Your task to perform on an android device: turn on showing notifications on the lock screen Image 0: 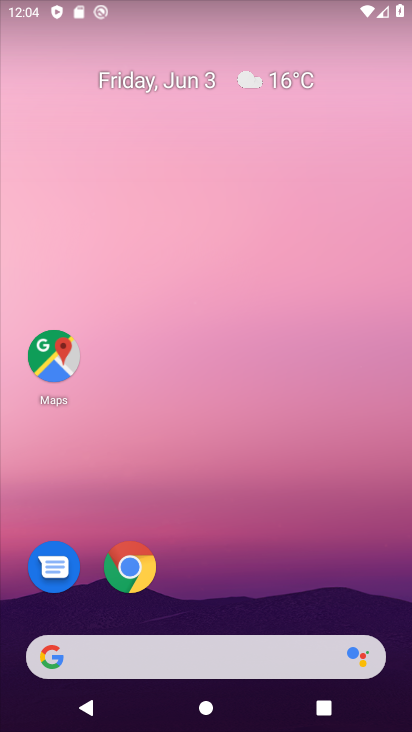
Step 0: drag from (261, 568) to (261, 225)
Your task to perform on an android device: turn on showing notifications on the lock screen Image 1: 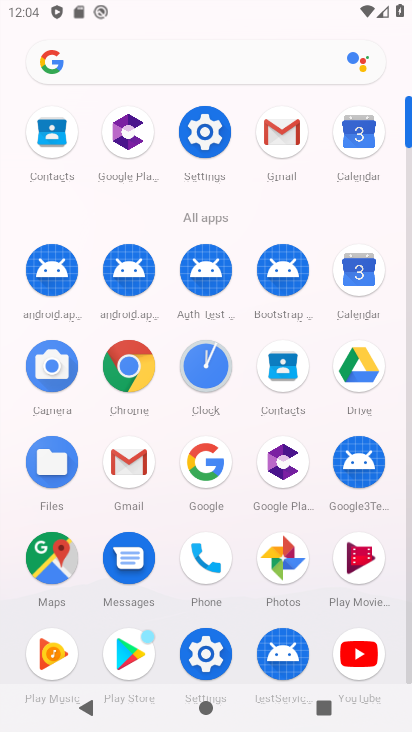
Step 1: click (212, 634)
Your task to perform on an android device: turn on showing notifications on the lock screen Image 2: 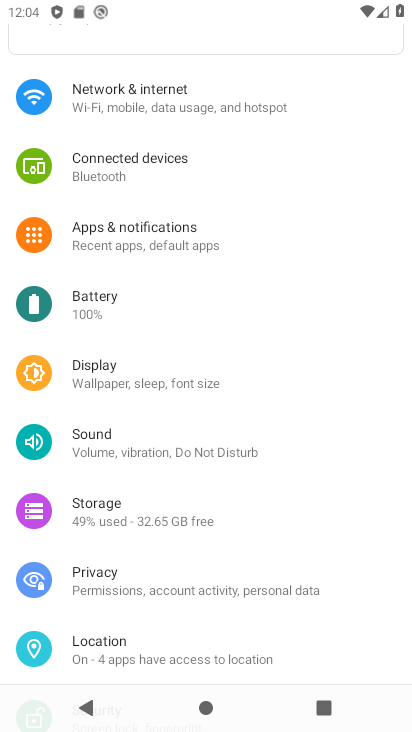
Step 2: click (75, 249)
Your task to perform on an android device: turn on showing notifications on the lock screen Image 3: 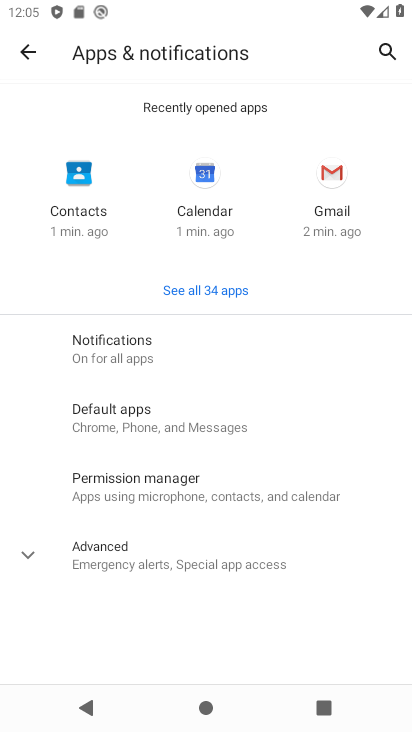
Step 3: click (135, 348)
Your task to perform on an android device: turn on showing notifications on the lock screen Image 4: 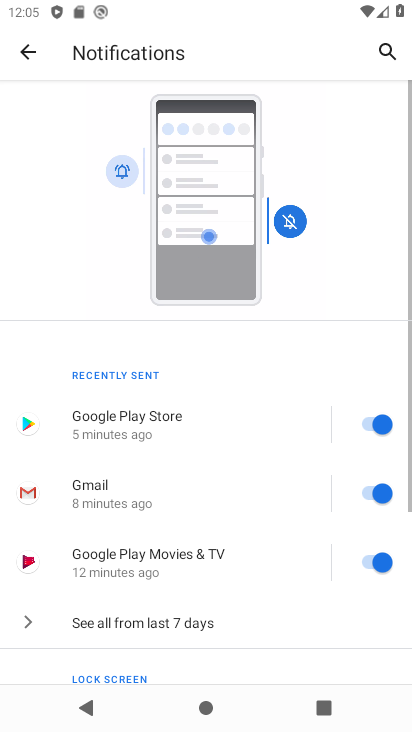
Step 4: drag from (156, 646) to (164, 333)
Your task to perform on an android device: turn on showing notifications on the lock screen Image 5: 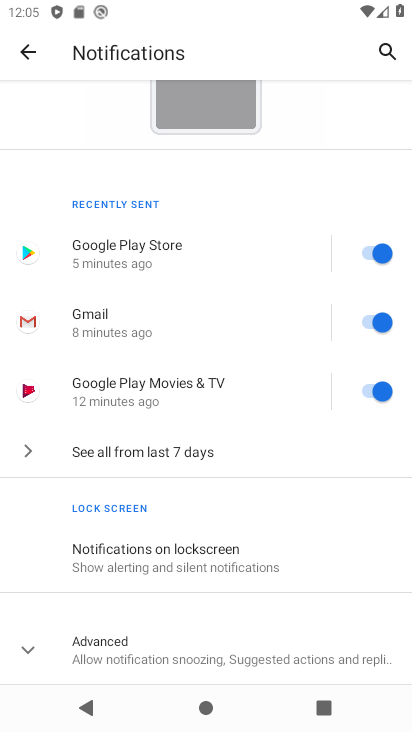
Step 5: click (122, 546)
Your task to perform on an android device: turn on showing notifications on the lock screen Image 6: 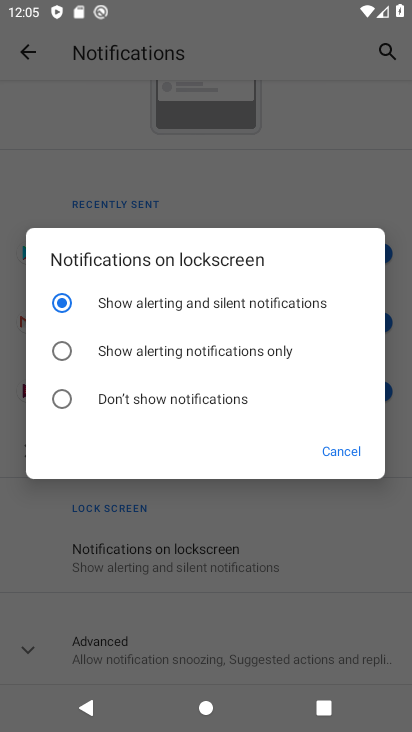
Step 6: task complete